Your task to perform on an android device: When is my next meeting? Image 0: 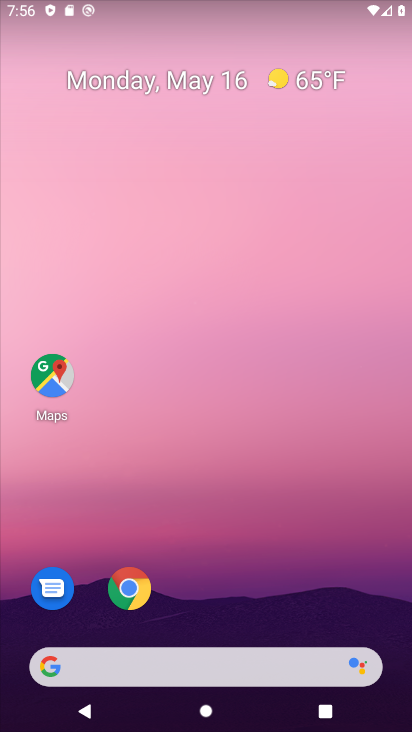
Step 0: drag from (375, 587) to (380, 150)
Your task to perform on an android device: When is my next meeting? Image 1: 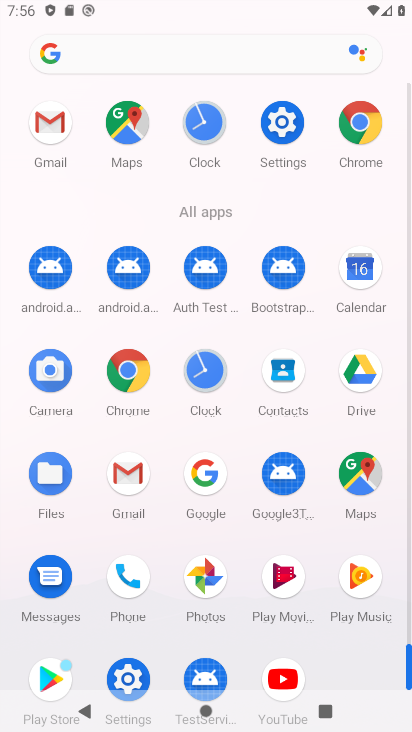
Step 1: click (374, 275)
Your task to perform on an android device: When is my next meeting? Image 2: 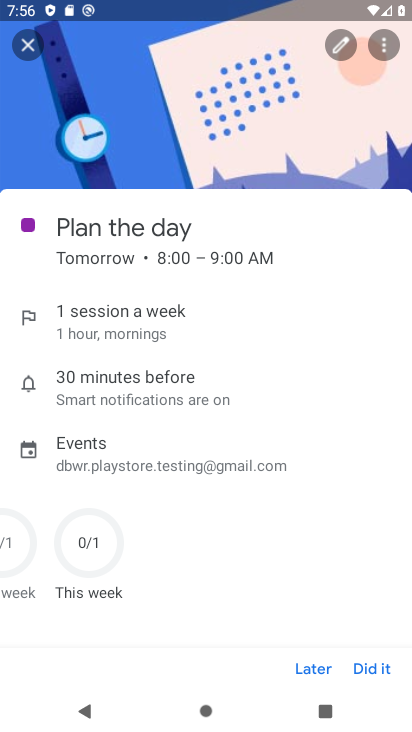
Step 2: click (22, 53)
Your task to perform on an android device: When is my next meeting? Image 3: 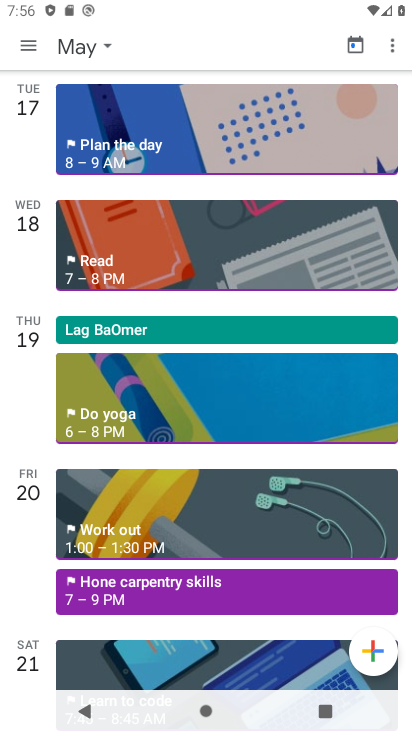
Step 3: click (172, 249)
Your task to perform on an android device: When is my next meeting? Image 4: 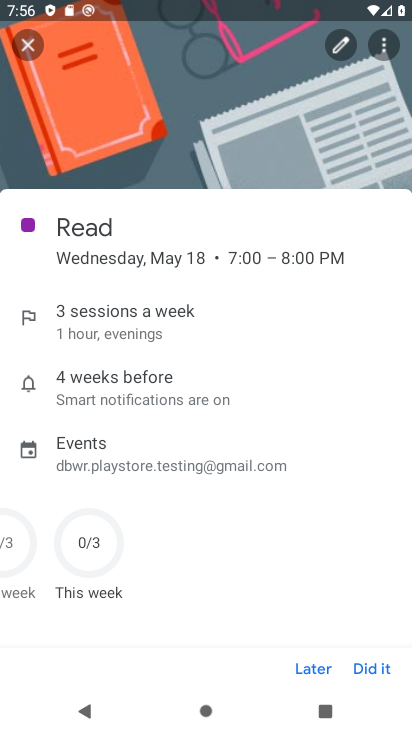
Step 4: task complete